Your task to perform on an android device: read, delete, or share a saved page in the chrome app Image 0: 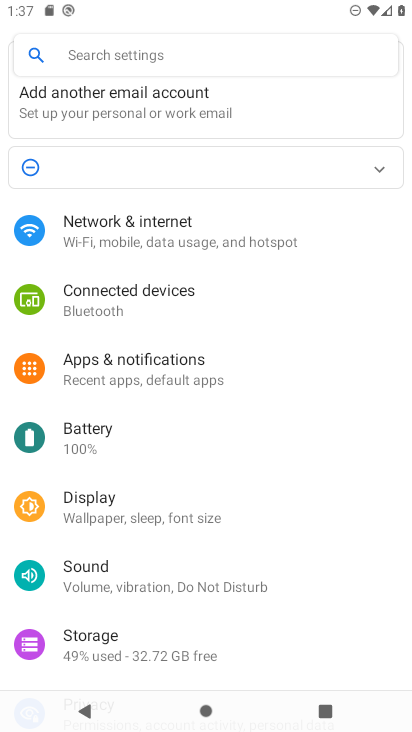
Step 0: press home button
Your task to perform on an android device: read, delete, or share a saved page in the chrome app Image 1: 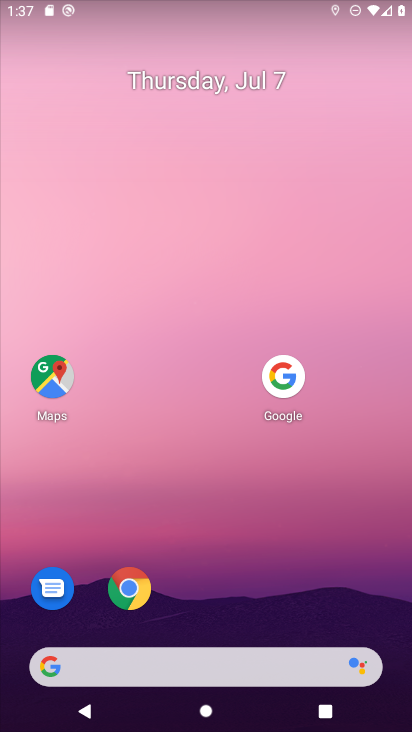
Step 1: click (138, 597)
Your task to perform on an android device: read, delete, or share a saved page in the chrome app Image 2: 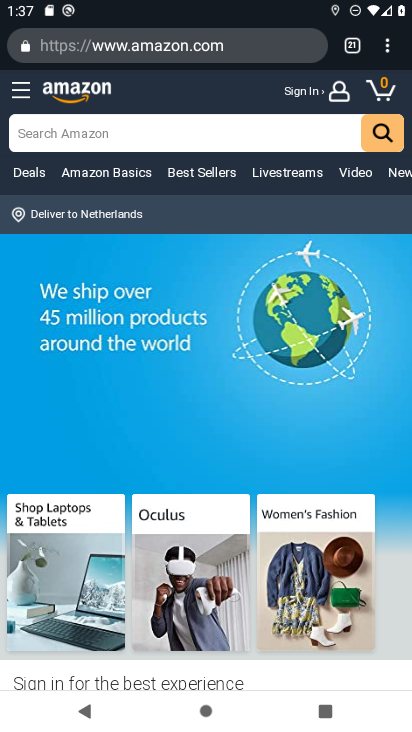
Step 2: drag from (387, 47) to (272, 292)
Your task to perform on an android device: read, delete, or share a saved page in the chrome app Image 3: 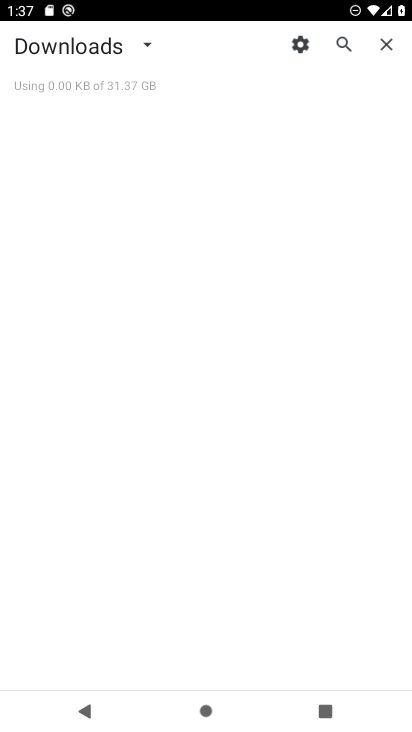
Step 3: click (149, 43)
Your task to perform on an android device: read, delete, or share a saved page in the chrome app Image 4: 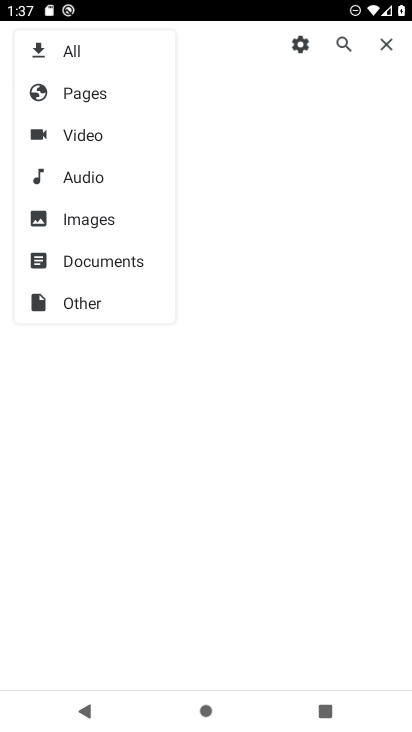
Step 4: click (76, 99)
Your task to perform on an android device: read, delete, or share a saved page in the chrome app Image 5: 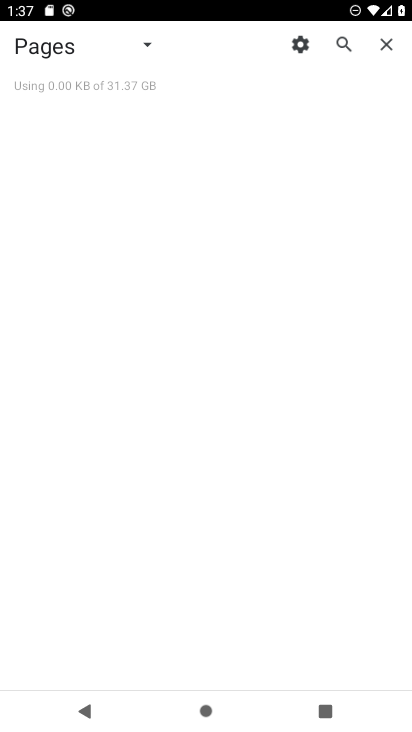
Step 5: task complete